Your task to perform on an android device: Search for Mexican restaurants on Maps Image 0: 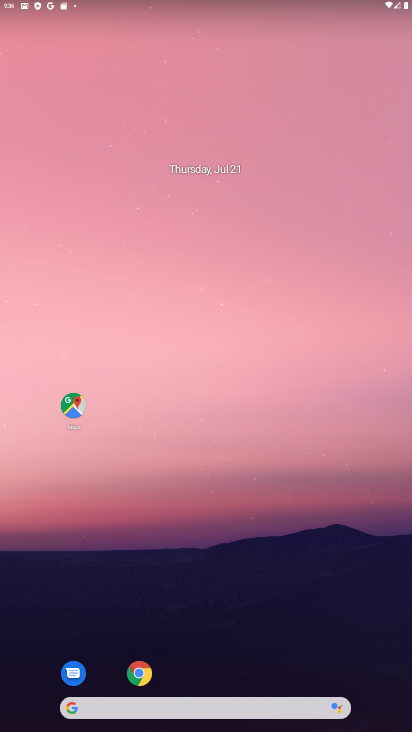
Step 0: click (76, 390)
Your task to perform on an android device: Search for Mexican restaurants on Maps Image 1: 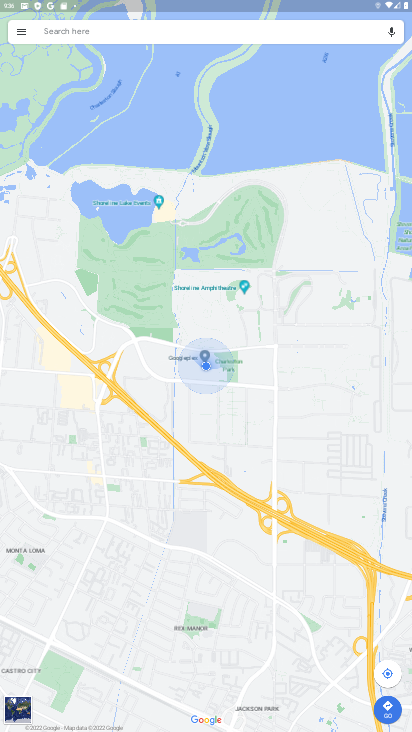
Step 1: click (99, 33)
Your task to perform on an android device: Search for Mexican restaurants on Maps Image 2: 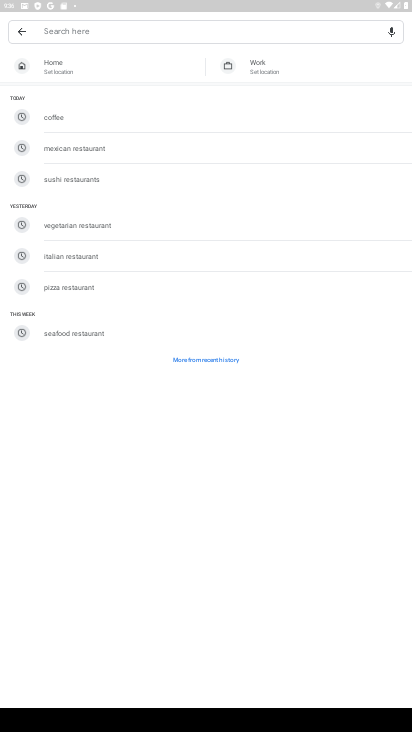
Step 2: click (58, 150)
Your task to perform on an android device: Search for Mexican restaurants on Maps Image 3: 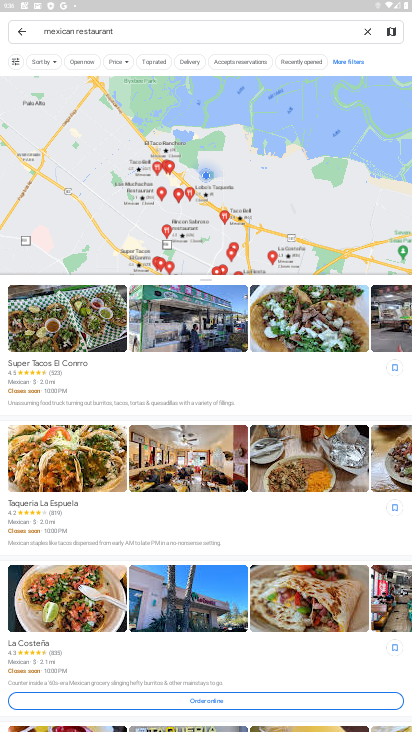
Step 3: task complete